Your task to perform on an android device: What's the weather going to be this weekend? Image 0: 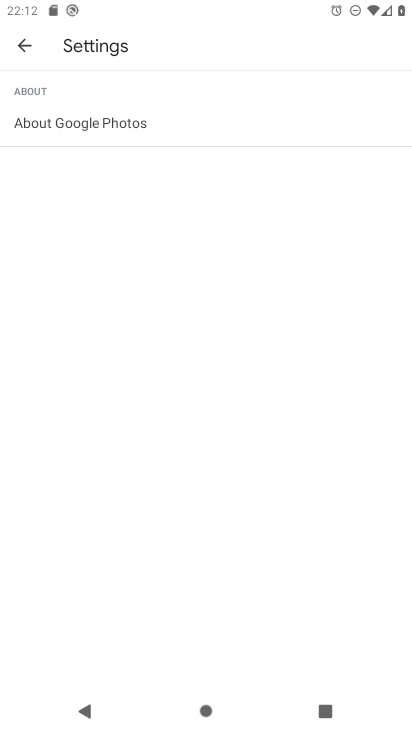
Step 0: press home button
Your task to perform on an android device: What's the weather going to be this weekend? Image 1: 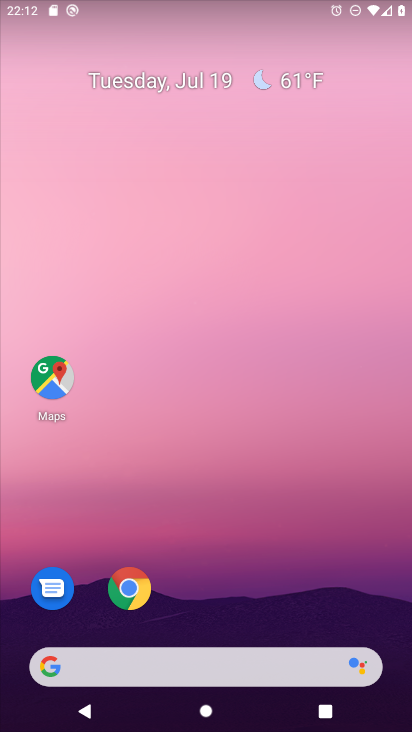
Step 1: drag from (214, 622) to (235, 44)
Your task to perform on an android device: What's the weather going to be this weekend? Image 2: 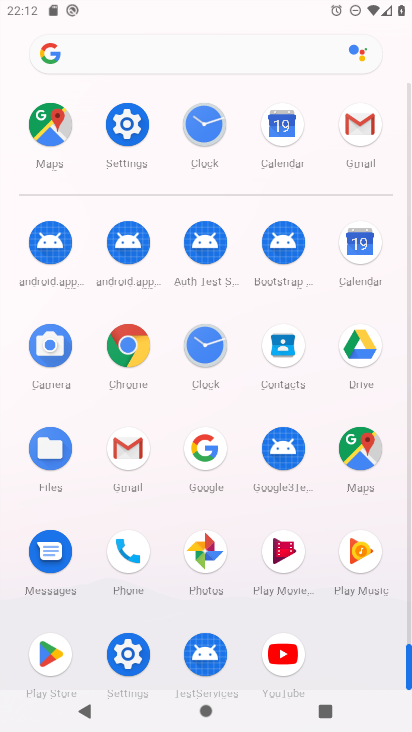
Step 2: press home button
Your task to perform on an android device: What's the weather going to be this weekend? Image 3: 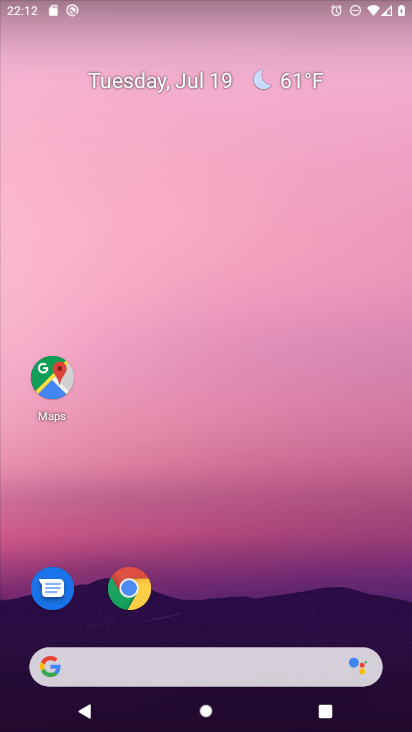
Step 3: click (285, 77)
Your task to perform on an android device: What's the weather going to be this weekend? Image 4: 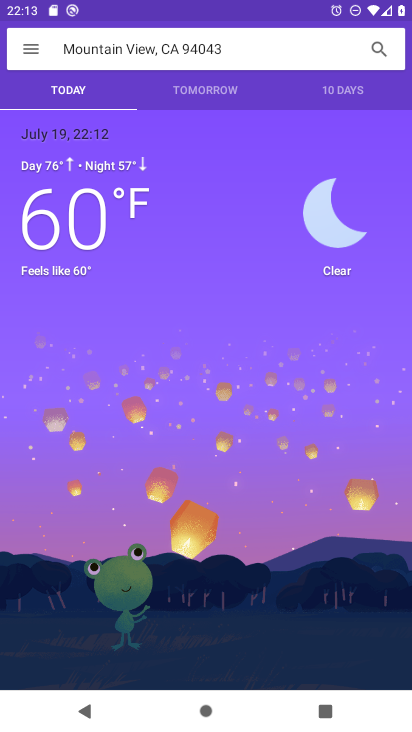
Step 4: click (339, 98)
Your task to perform on an android device: What's the weather going to be this weekend? Image 5: 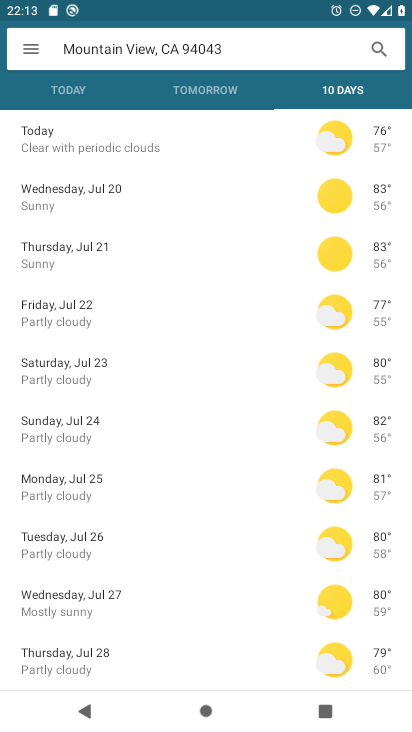
Step 5: click (134, 358)
Your task to perform on an android device: What's the weather going to be this weekend? Image 6: 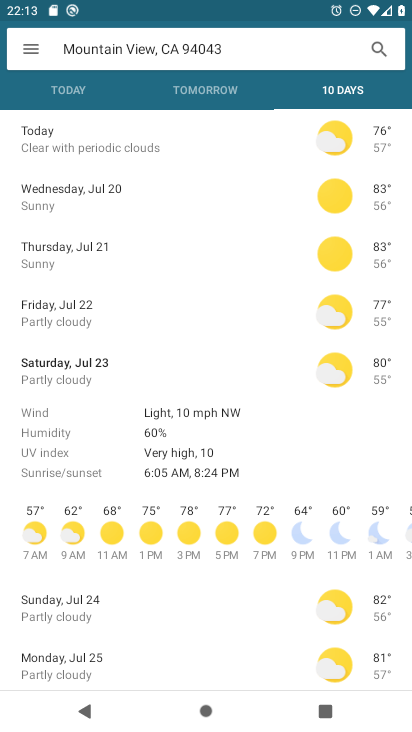
Step 6: task complete